Your task to perform on an android device: Search for pizza restaurants on Maps Image 0: 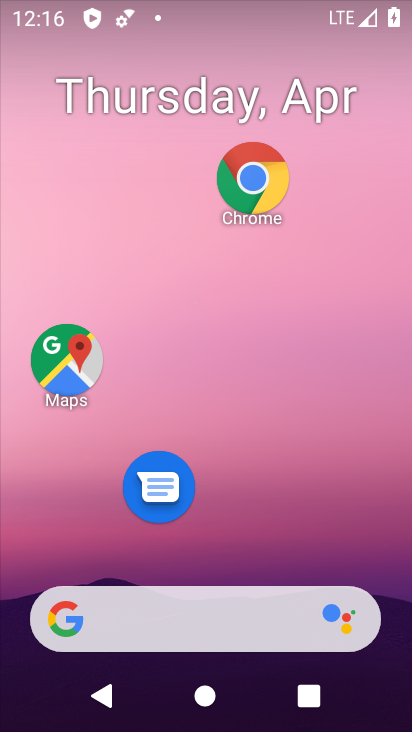
Step 0: drag from (225, 723) to (222, 131)
Your task to perform on an android device: Search for pizza restaurants on Maps Image 1: 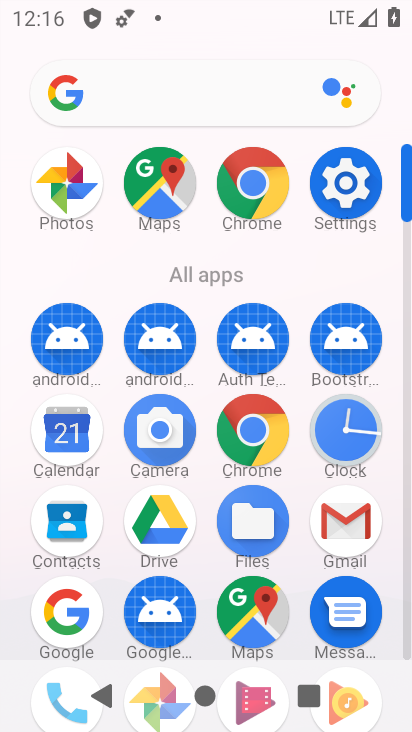
Step 1: click (257, 608)
Your task to perform on an android device: Search for pizza restaurants on Maps Image 2: 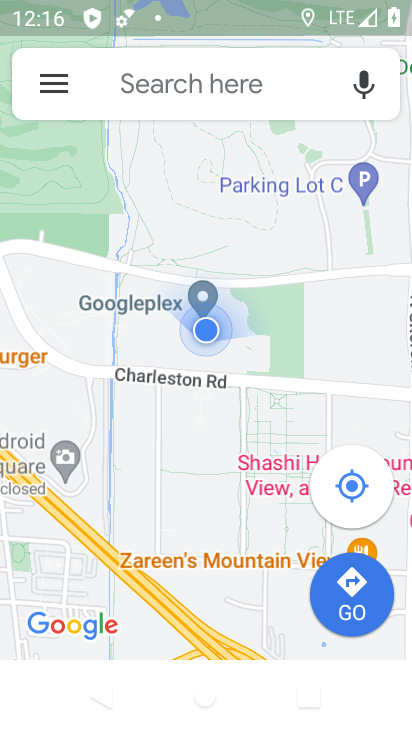
Step 2: type "pizza restaurants"
Your task to perform on an android device: Search for pizza restaurants on Maps Image 3: 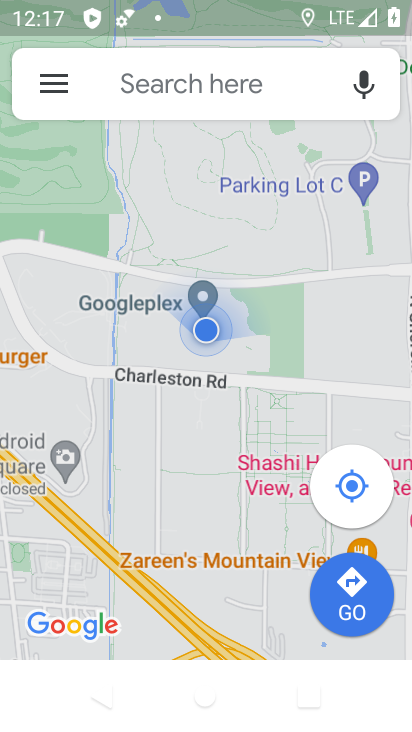
Step 3: click (228, 80)
Your task to perform on an android device: Search for pizza restaurants on Maps Image 4: 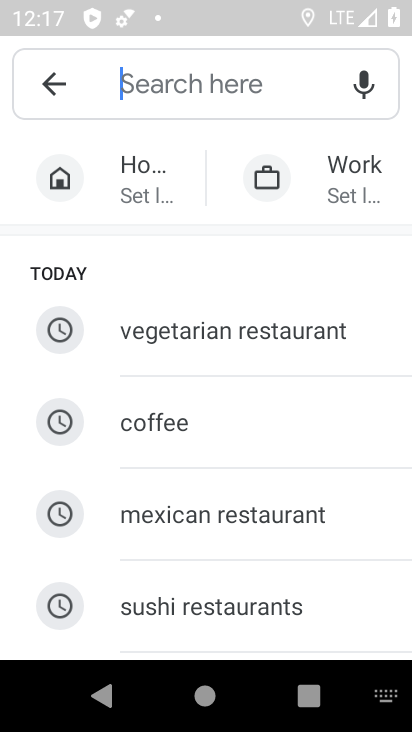
Step 4: type "pizza restaurants"
Your task to perform on an android device: Search for pizza restaurants on Maps Image 5: 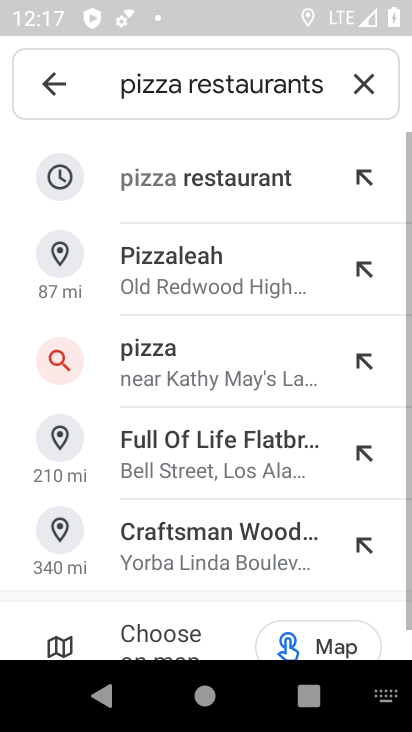
Step 5: click (145, 183)
Your task to perform on an android device: Search for pizza restaurants on Maps Image 6: 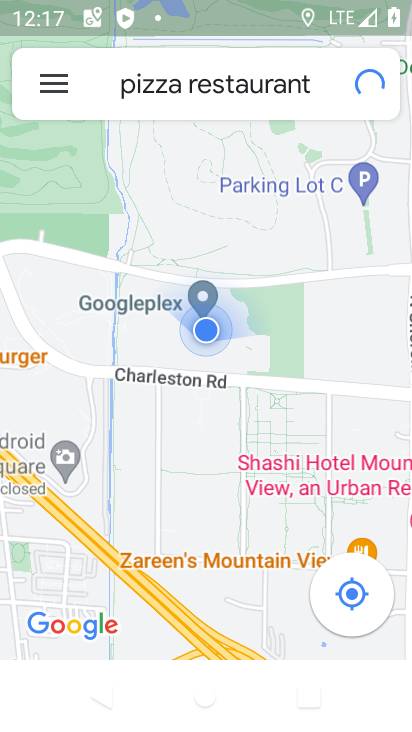
Step 6: task complete